Your task to perform on an android device: Is it going to rain tomorrow? Image 0: 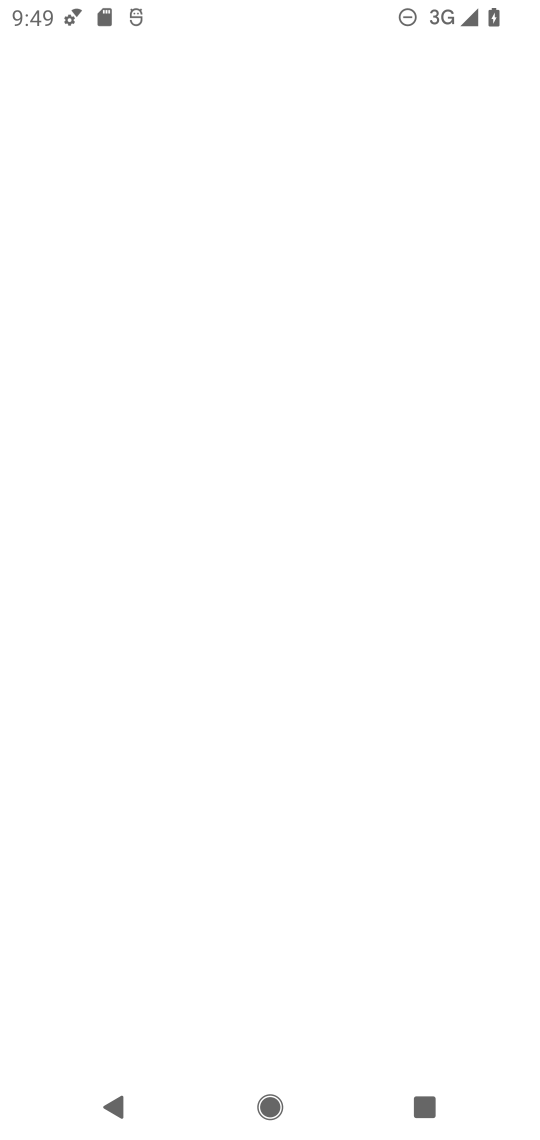
Step 0: press home button
Your task to perform on an android device: Is it going to rain tomorrow? Image 1: 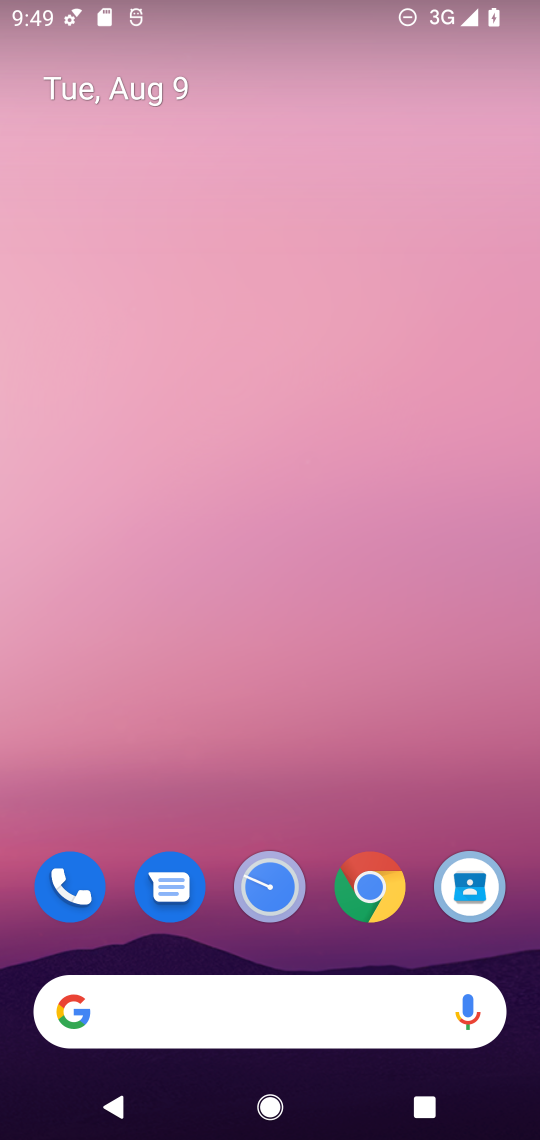
Step 1: drag from (301, 796) to (248, 125)
Your task to perform on an android device: Is it going to rain tomorrow? Image 2: 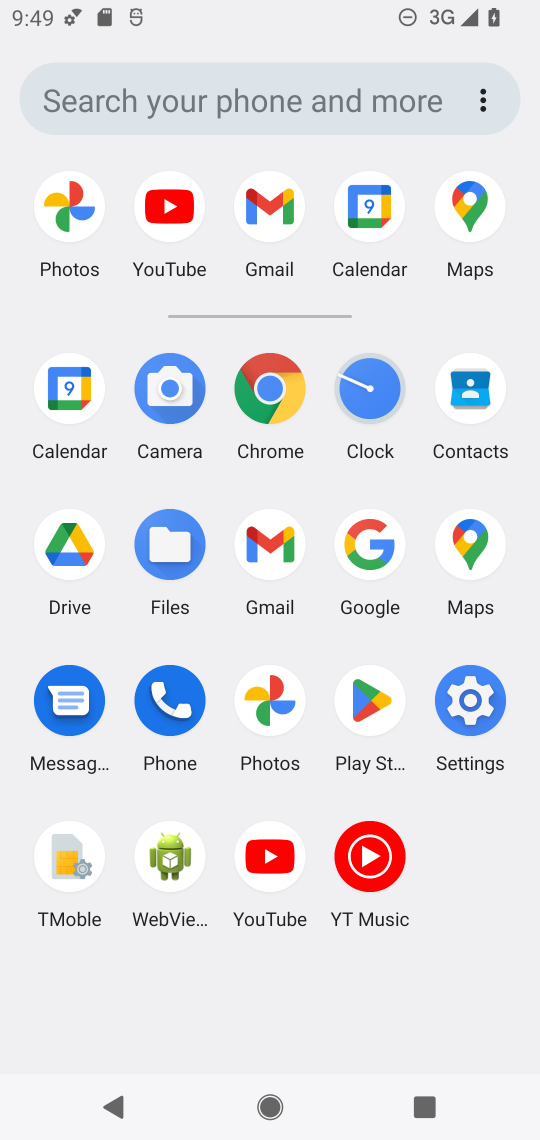
Step 2: click (351, 576)
Your task to perform on an android device: Is it going to rain tomorrow? Image 3: 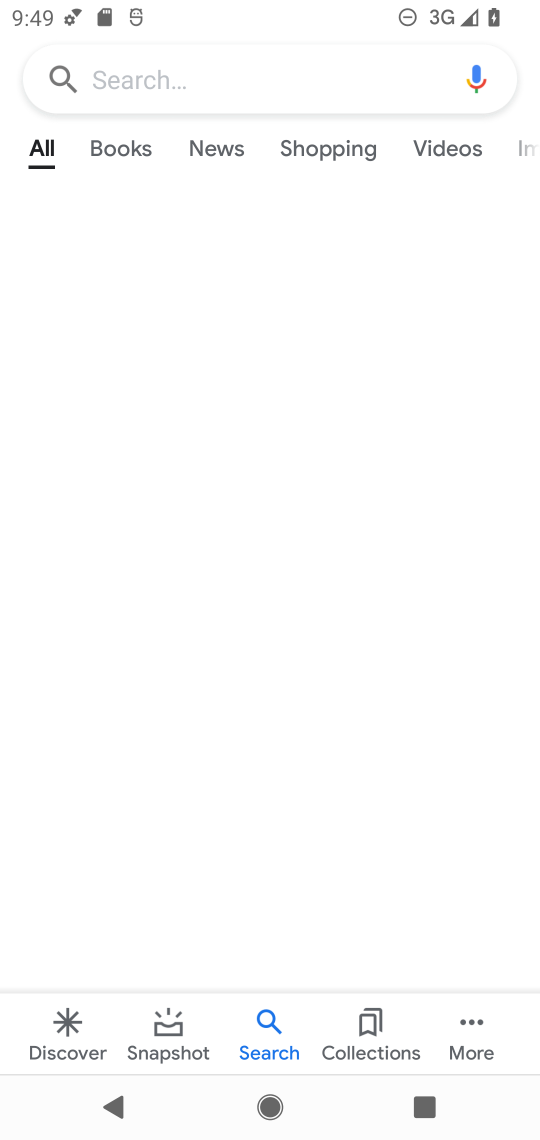
Step 3: click (175, 79)
Your task to perform on an android device: Is it going to rain tomorrow? Image 4: 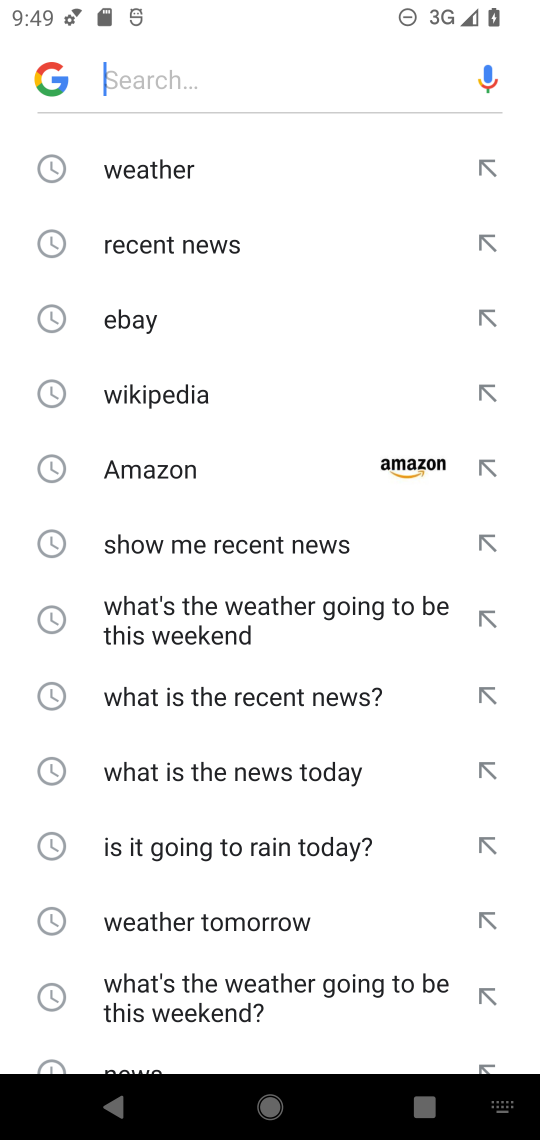
Step 4: click (174, 171)
Your task to perform on an android device: Is it going to rain tomorrow? Image 5: 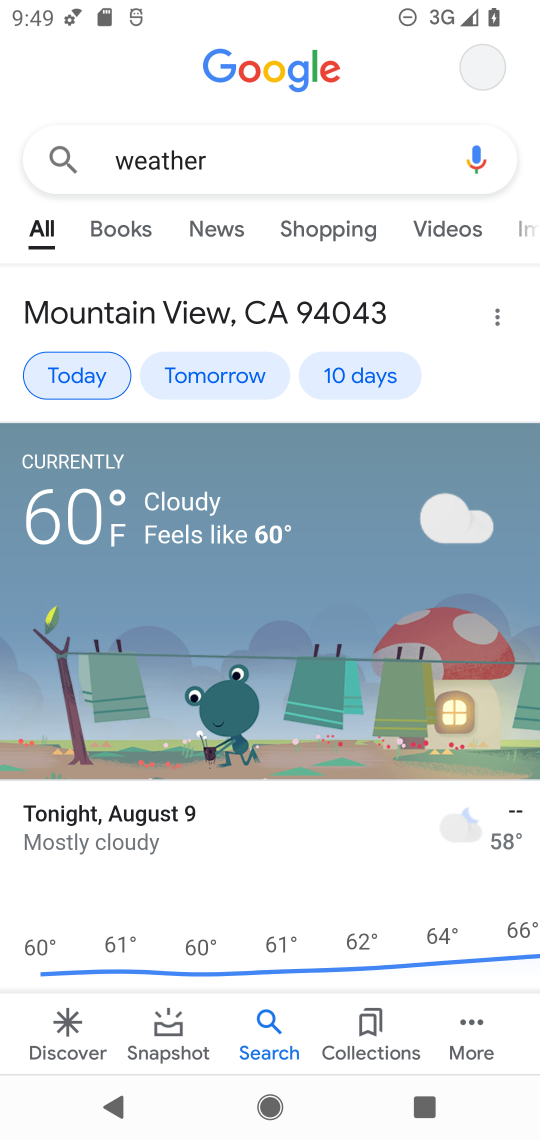
Step 5: click (260, 385)
Your task to perform on an android device: Is it going to rain tomorrow? Image 6: 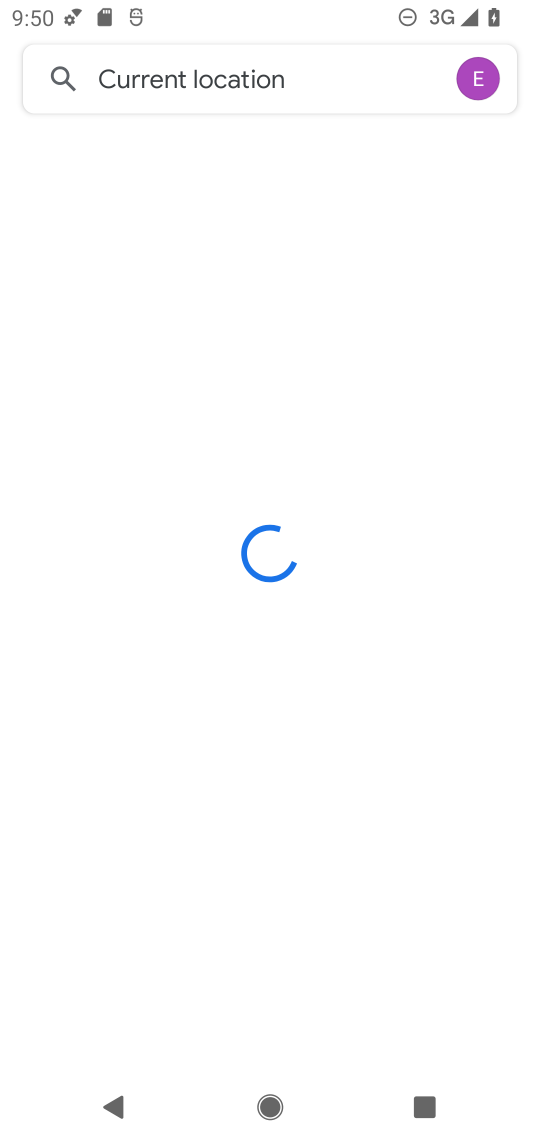
Step 6: press home button
Your task to perform on an android device: Is it going to rain tomorrow? Image 7: 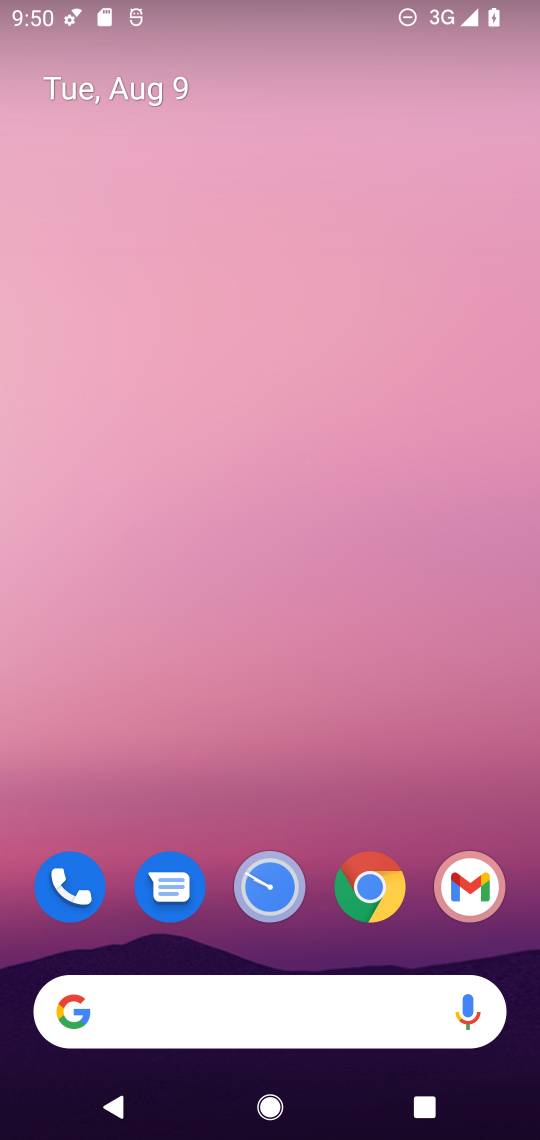
Step 7: drag from (318, 790) to (325, 88)
Your task to perform on an android device: Is it going to rain tomorrow? Image 8: 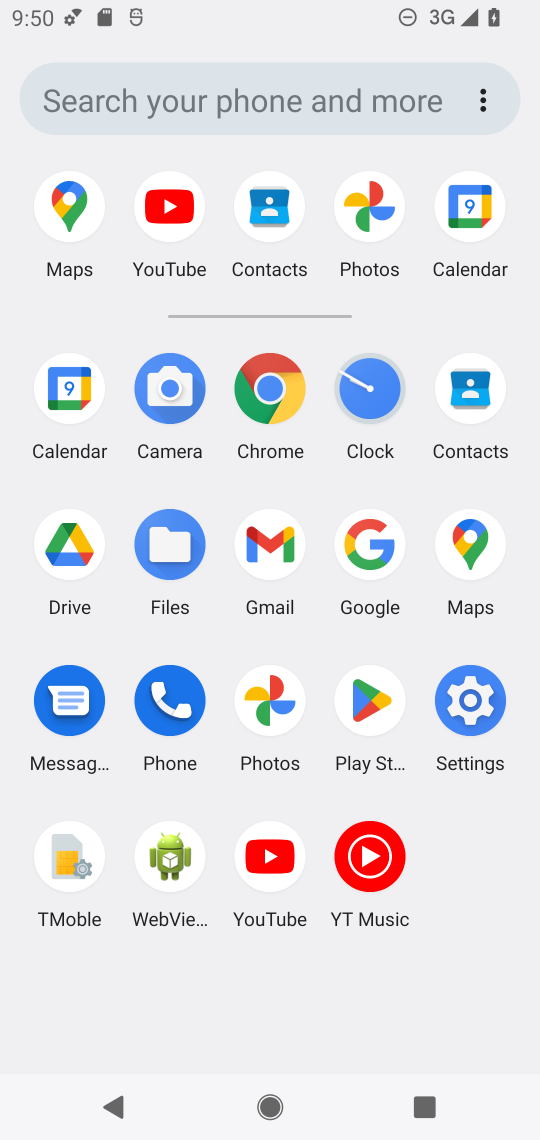
Step 8: click (371, 540)
Your task to perform on an android device: Is it going to rain tomorrow? Image 9: 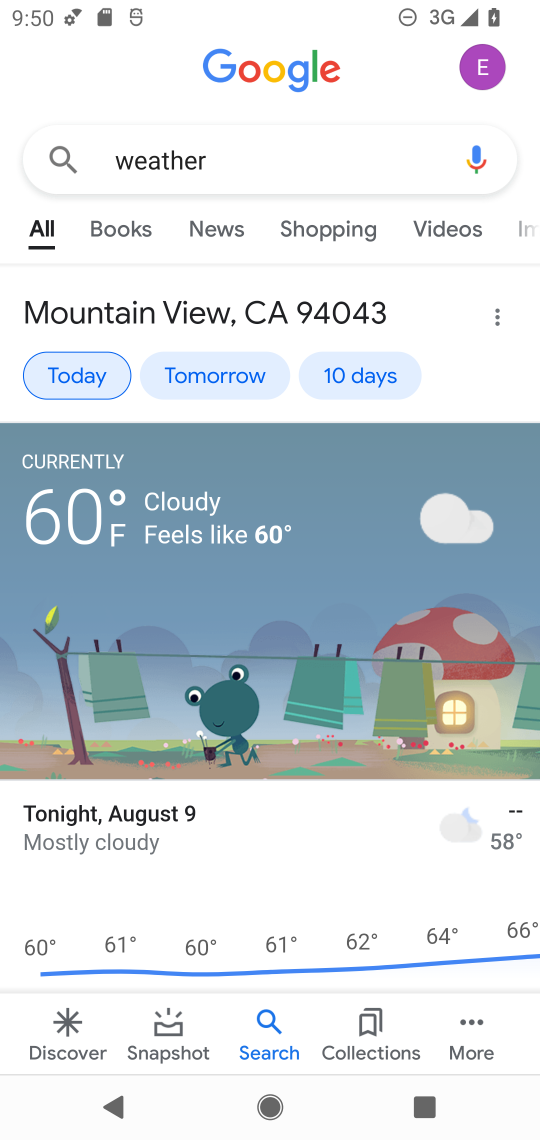
Step 9: click (192, 371)
Your task to perform on an android device: Is it going to rain tomorrow? Image 10: 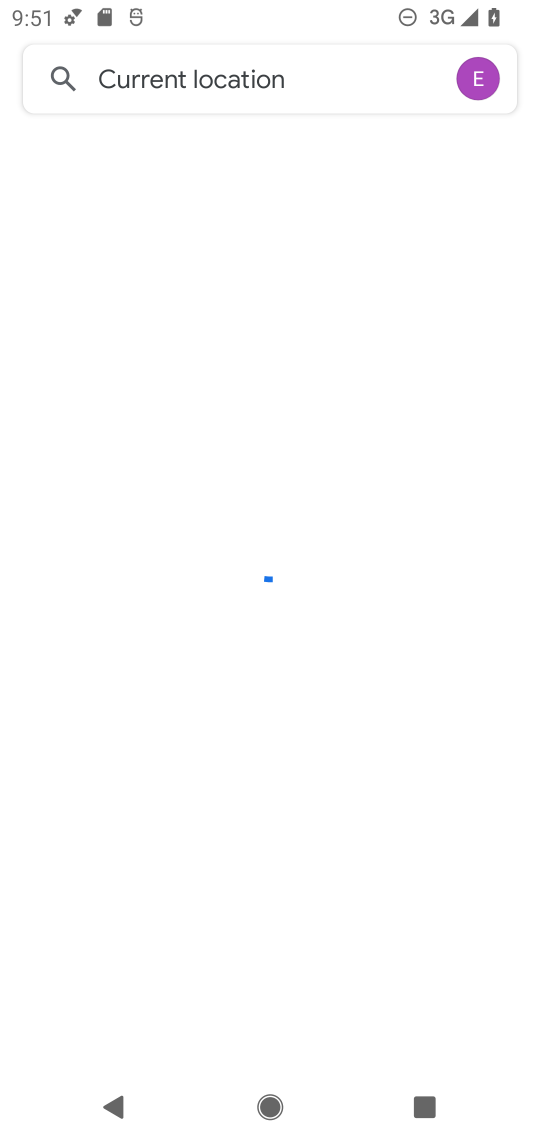
Step 10: task complete